Your task to perform on an android device: Open internet settings Image 0: 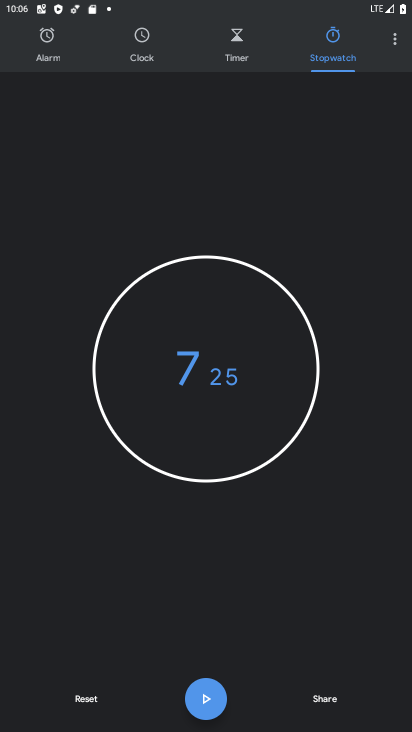
Step 0: press home button
Your task to perform on an android device: Open internet settings Image 1: 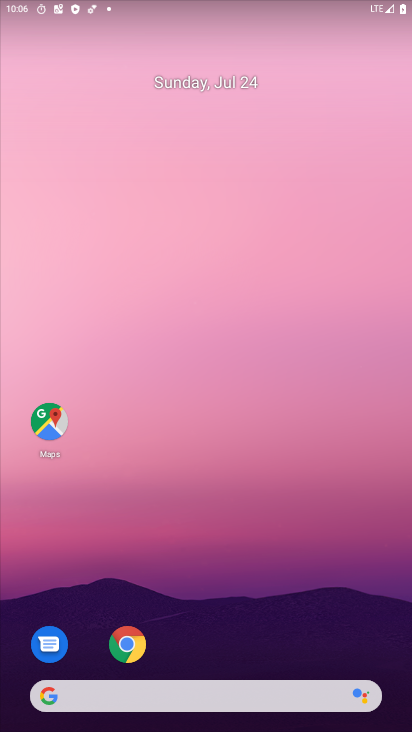
Step 1: drag from (257, 681) to (295, 237)
Your task to perform on an android device: Open internet settings Image 2: 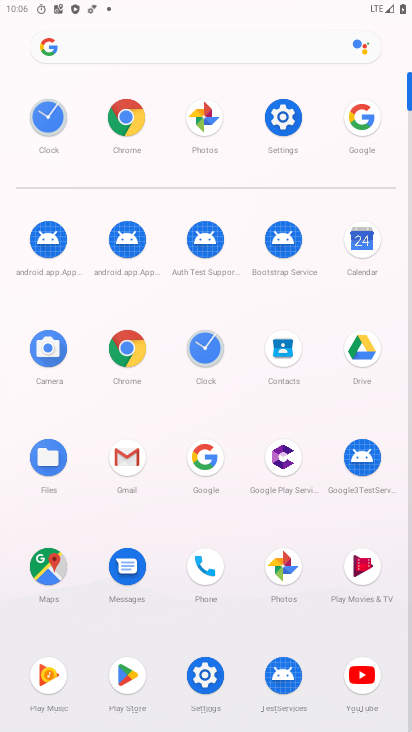
Step 2: click (279, 118)
Your task to perform on an android device: Open internet settings Image 3: 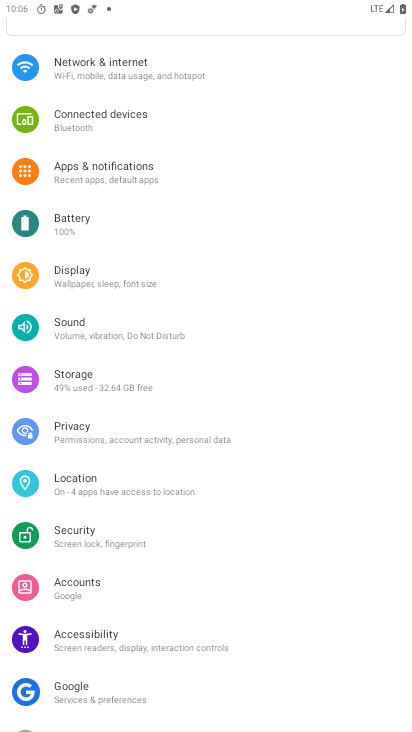
Step 3: click (95, 71)
Your task to perform on an android device: Open internet settings Image 4: 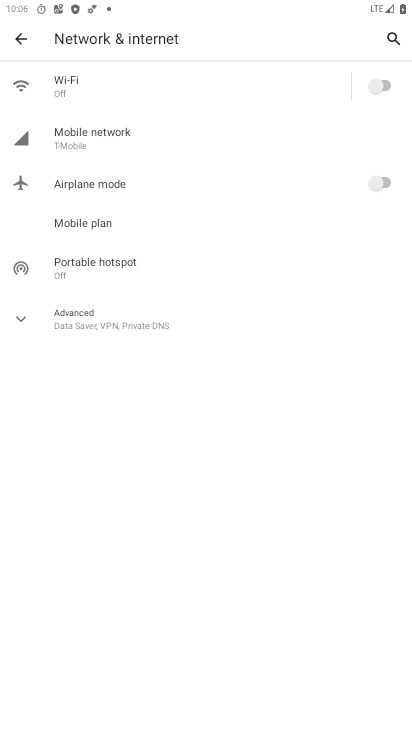
Step 4: click (80, 142)
Your task to perform on an android device: Open internet settings Image 5: 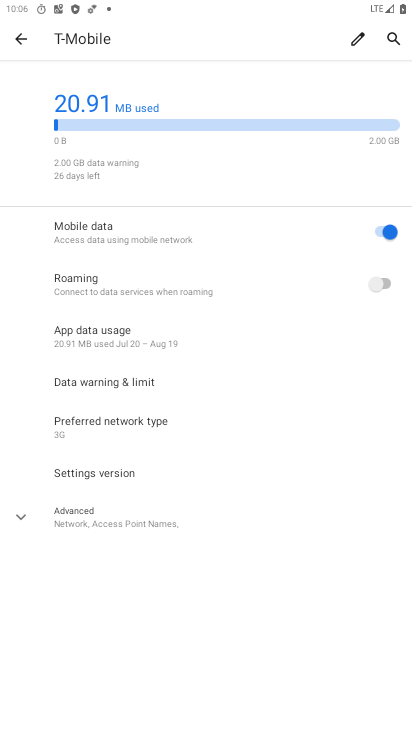
Step 5: task complete